Your task to perform on an android device: turn on airplane mode Image 0: 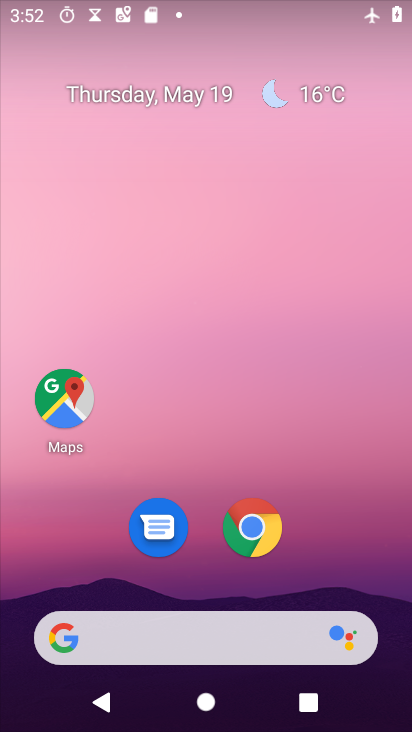
Step 0: drag from (314, 390) to (225, 62)
Your task to perform on an android device: turn on airplane mode Image 1: 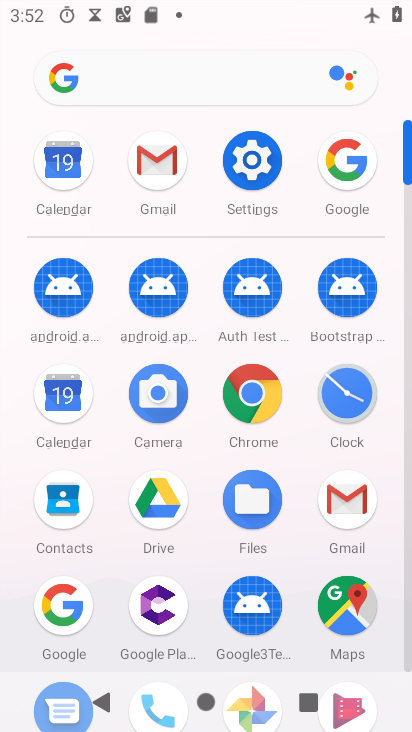
Step 1: click (237, 185)
Your task to perform on an android device: turn on airplane mode Image 2: 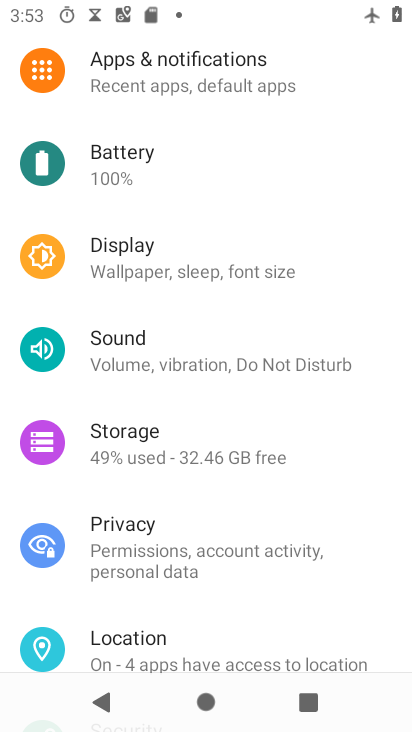
Step 2: drag from (272, 139) to (283, 645)
Your task to perform on an android device: turn on airplane mode Image 3: 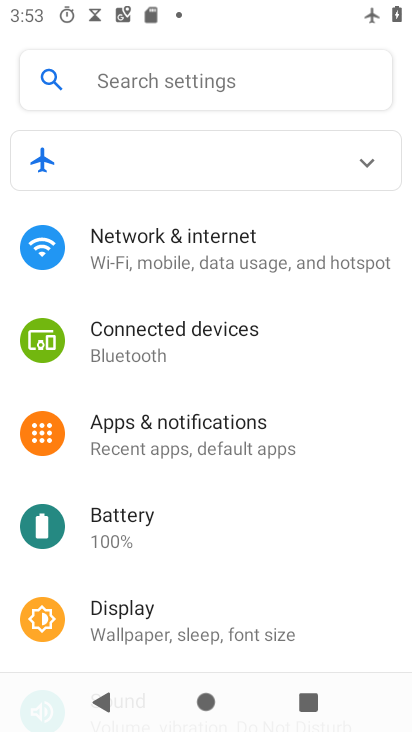
Step 3: click (240, 263)
Your task to perform on an android device: turn on airplane mode Image 4: 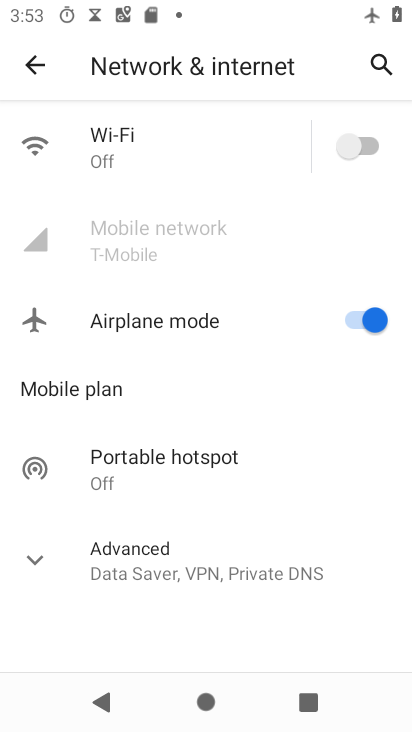
Step 4: task complete